Your task to perform on an android device: Do I have any events this weekend? Image 0: 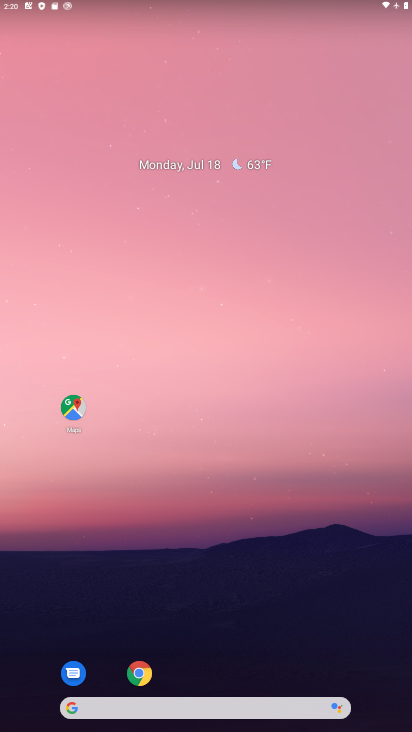
Step 0: drag from (211, 595) to (236, 96)
Your task to perform on an android device: Do I have any events this weekend? Image 1: 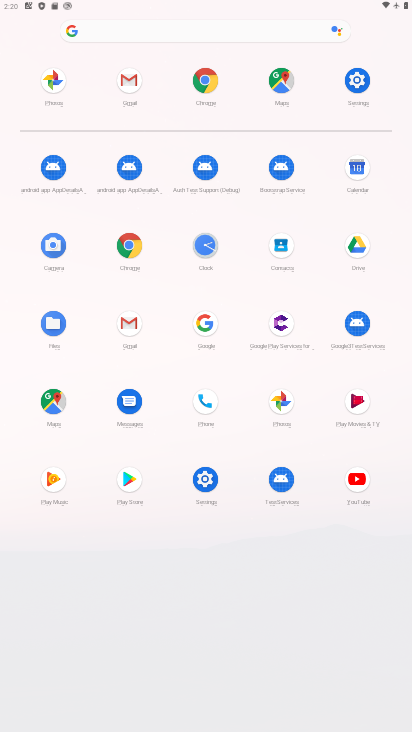
Step 1: click (354, 168)
Your task to perform on an android device: Do I have any events this weekend? Image 2: 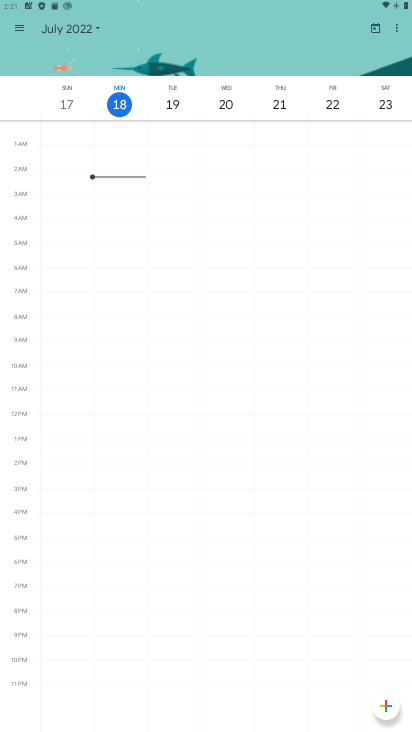
Step 2: task complete